Your task to perform on an android device: all mails in gmail Image 0: 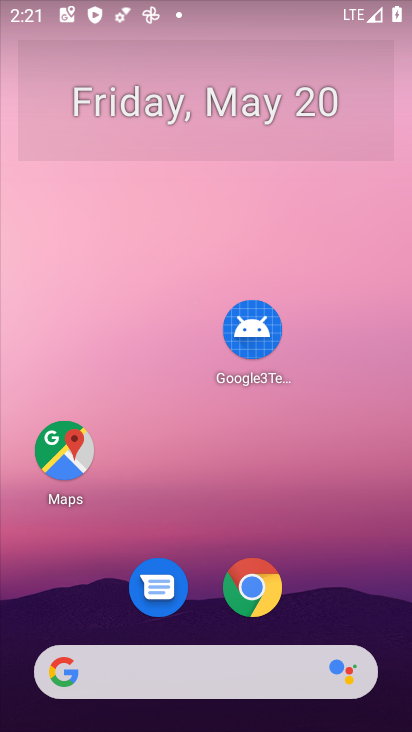
Step 0: drag from (323, 536) to (354, 35)
Your task to perform on an android device: all mails in gmail Image 1: 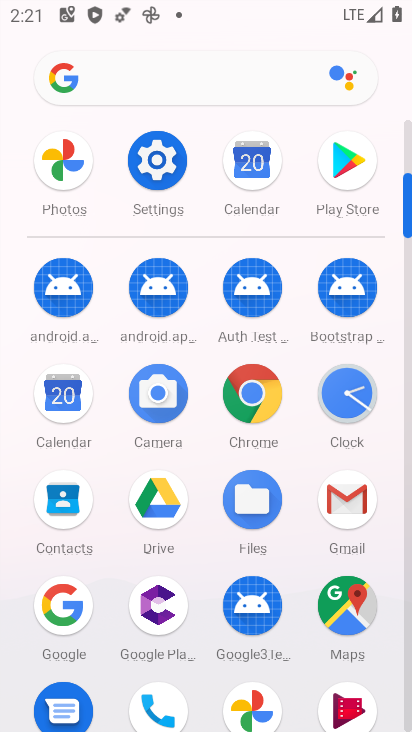
Step 1: click (345, 483)
Your task to perform on an android device: all mails in gmail Image 2: 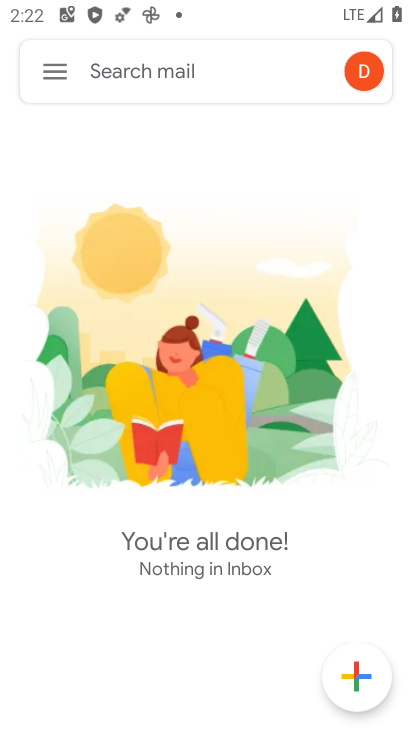
Step 2: click (61, 72)
Your task to perform on an android device: all mails in gmail Image 3: 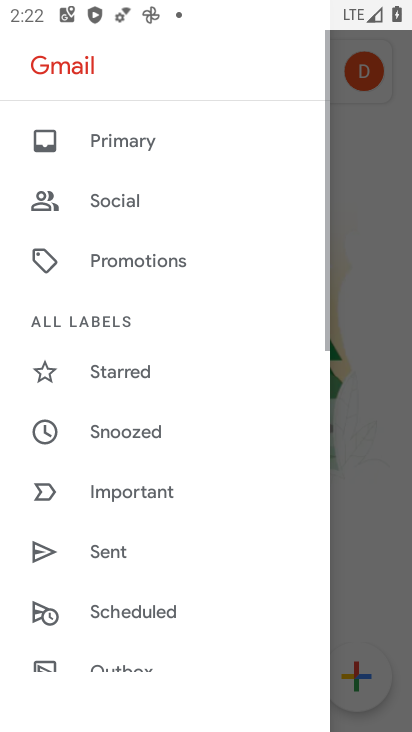
Step 3: click (61, 72)
Your task to perform on an android device: all mails in gmail Image 4: 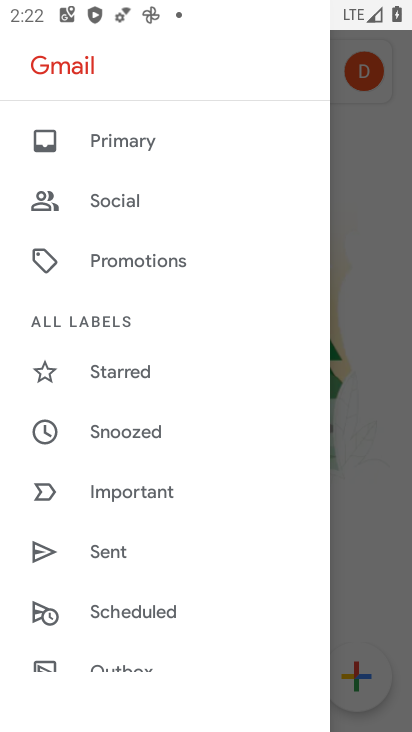
Step 4: drag from (209, 556) to (155, 212)
Your task to perform on an android device: all mails in gmail Image 5: 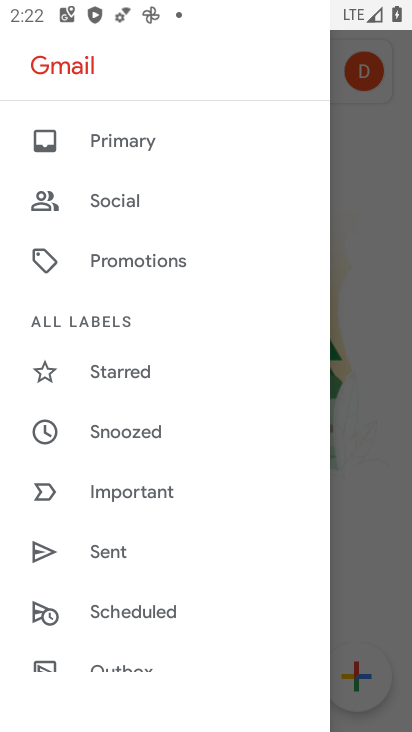
Step 5: drag from (206, 499) to (257, 3)
Your task to perform on an android device: all mails in gmail Image 6: 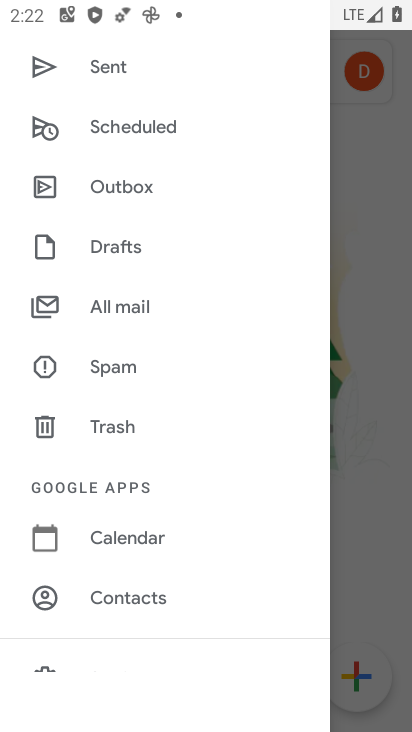
Step 6: click (125, 306)
Your task to perform on an android device: all mails in gmail Image 7: 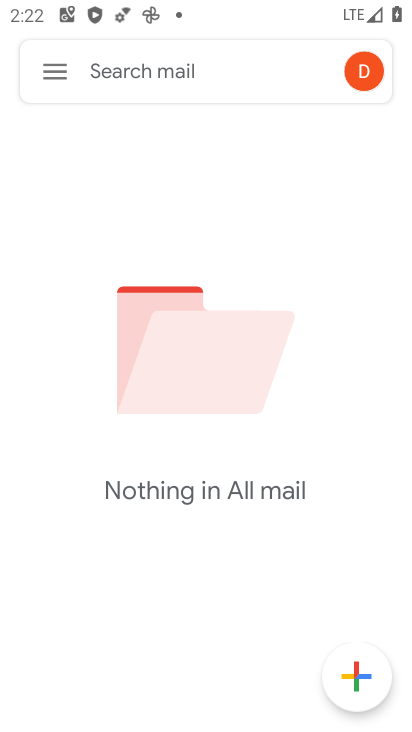
Step 7: task complete